Your task to perform on an android device: turn off priority inbox in the gmail app Image 0: 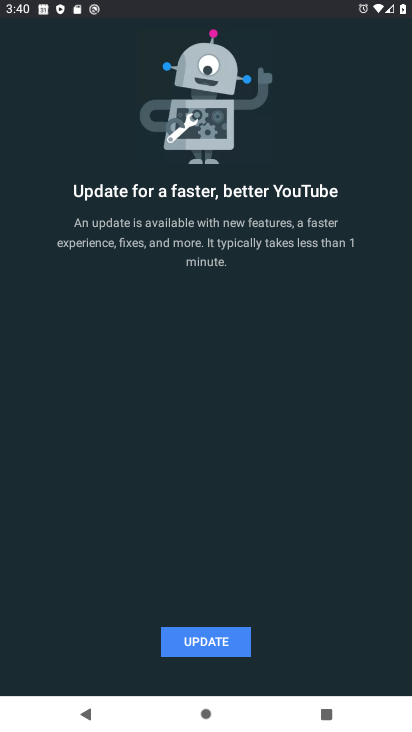
Step 0: press back button
Your task to perform on an android device: turn off priority inbox in the gmail app Image 1: 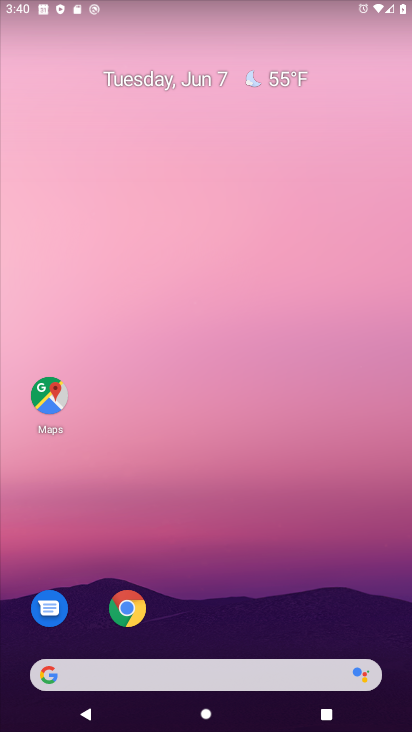
Step 1: drag from (209, 654) to (182, 85)
Your task to perform on an android device: turn off priority inbox in the gmail app Image 2: 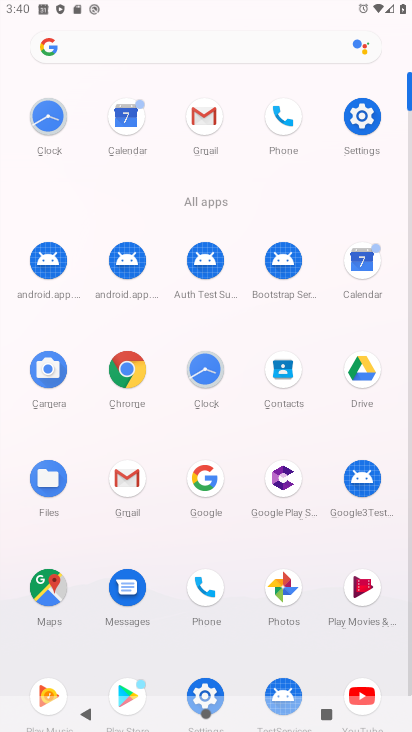
Step 2: click (134, 484)
Your task to perform on an android device: turn off priority inbox in the gmail app Image 3: 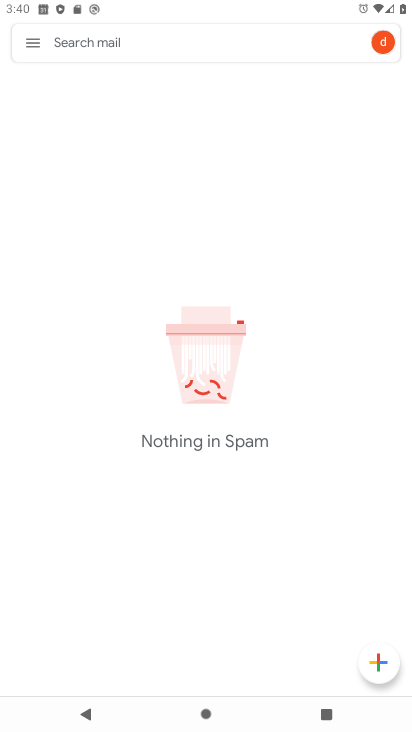
Step 3: click (32, 34)
Your task to perform on an android device: turn off priority inbox in the gmail app Image 4: 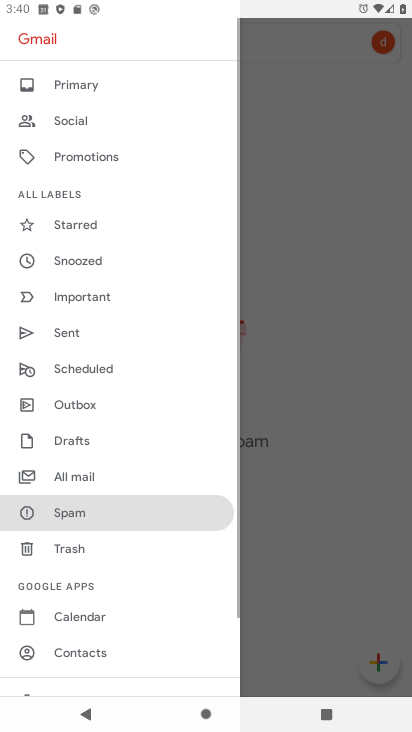
Step 4: drag from (62, 527) to (0, 136)
Your task to perform on an android device: turn off priority inbox in the gmail app Image 5: 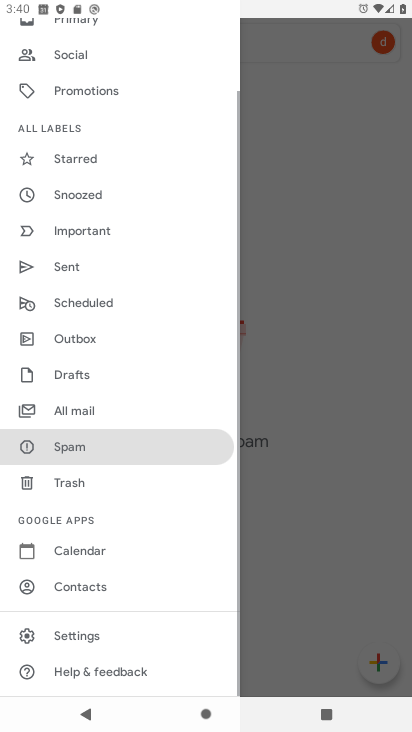
Step 5: click (67, 622)
Your task to perform on an android device: turn off priority inbox in the gmail app Image 6: 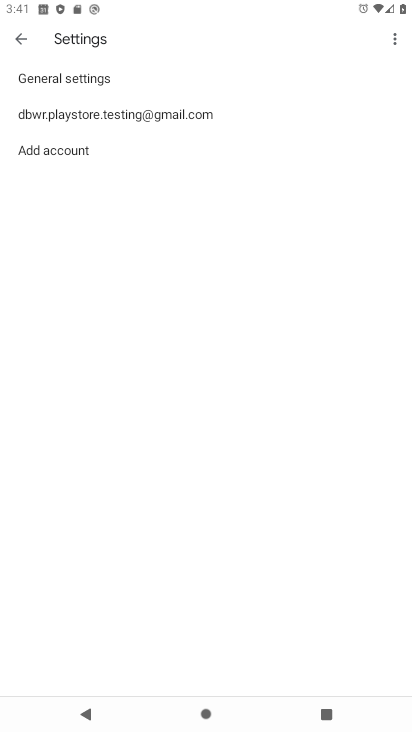
Step 6: click (62, 109)
Your task to perform on an android device: turn off priority inbox in the gmail app Image 7: 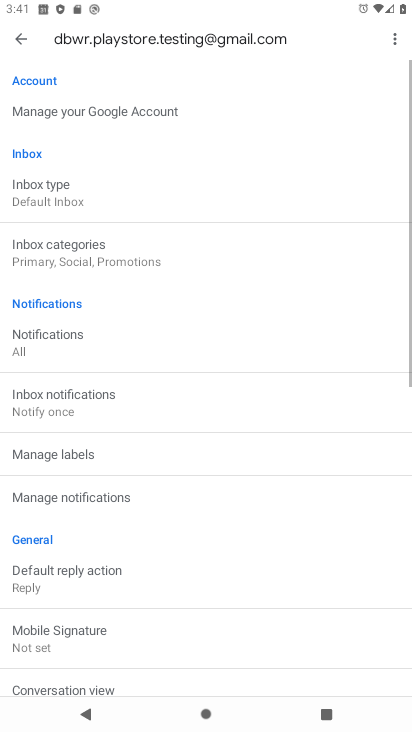
Step 7: drag from (122, 538) to (69, 117)
Your task to perform on an android device: turn off priority inbox in the gmail app Image 8: 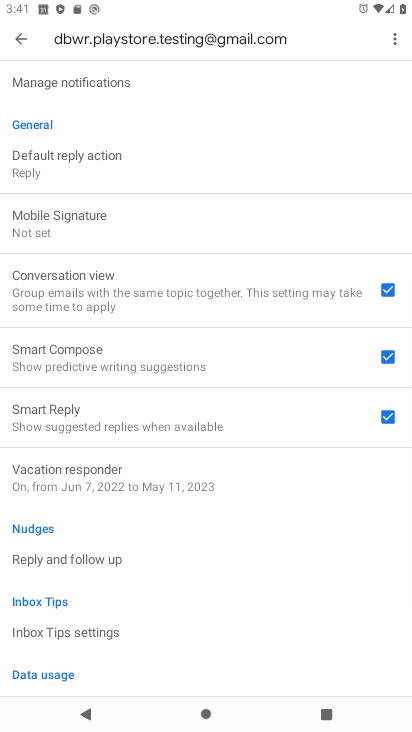
Step 8: drag from (78, 141) to (76, 571)
Your task to perform on an android device: turn off priority inbox in the gmail app Image 9: 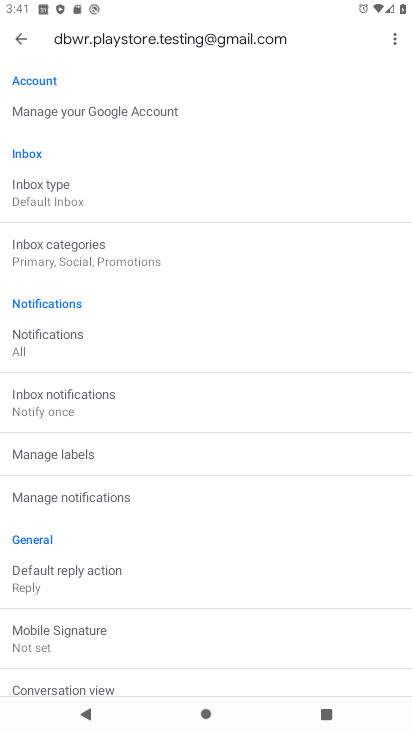
Step 9: click (56, 203)
Your task to perform on an android device: turn off priority inbox in the gmail app Image 10: 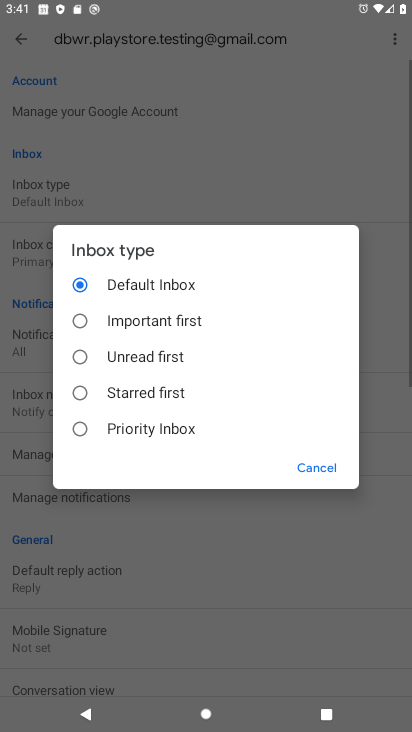
Step 10: task complete